Your task to perform on an android device: Go to Google maps Image 0: 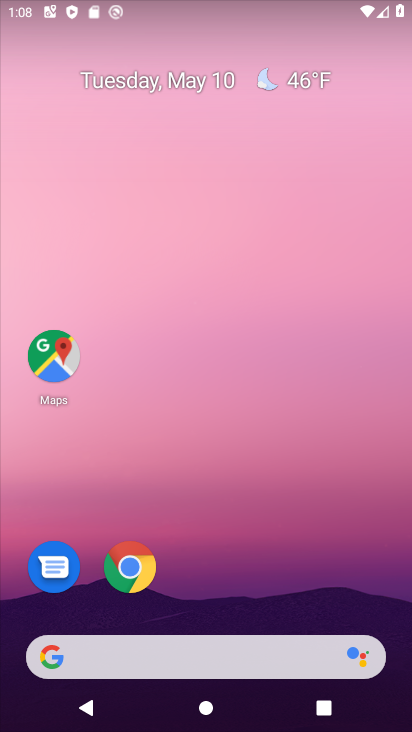
Step 0: click (65, 338)
Your task to perform on an android device: Go to Google maps Image 1: 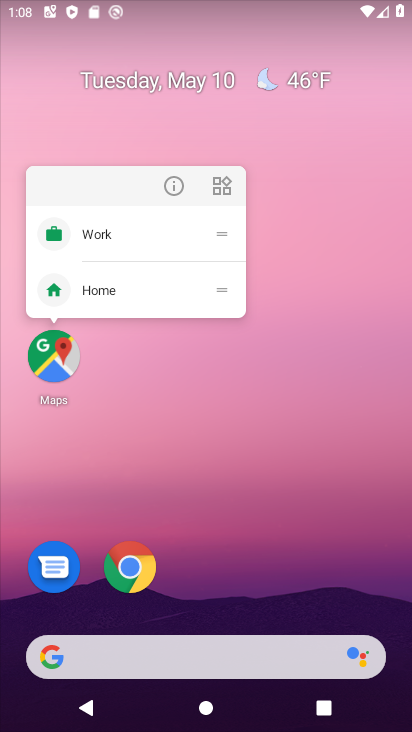
Step 1: click (76, 368)
Your task to perform on an android device: Go to Google maps Image 2: 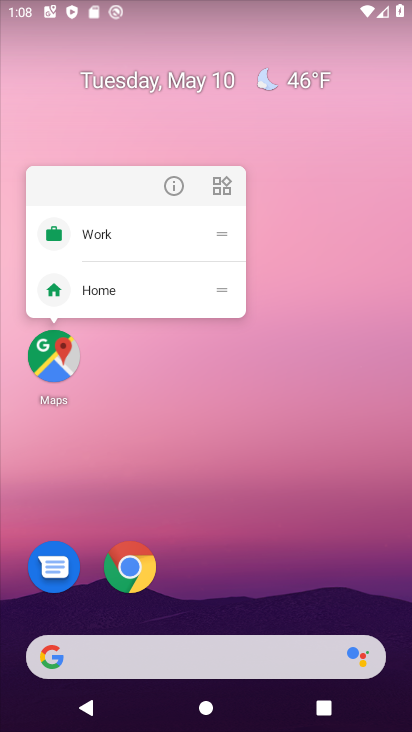
Step 2: click (60, 369)
Your task to perform on an android device: Go to Google maps Image 3: 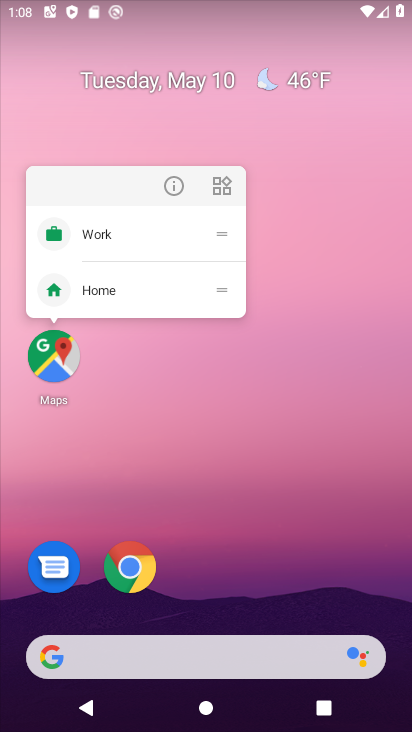
Step 3: click (60, 369)
Your task to perform on an android device: Go to Google maps Image 4: 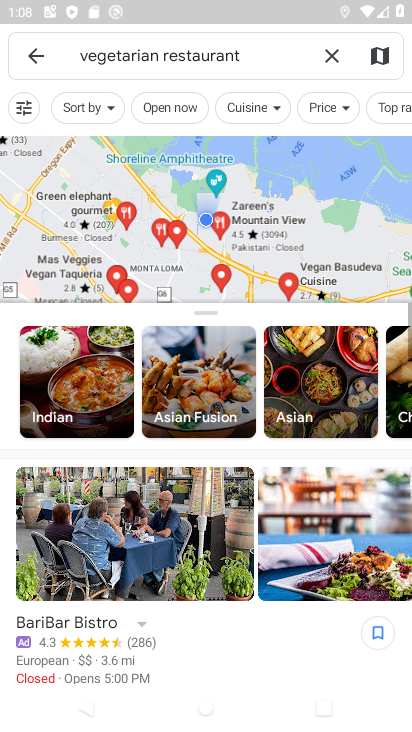
Step 4: task complete